Your task to perform on an android device: turn on data saver in the chrome app Image 0: 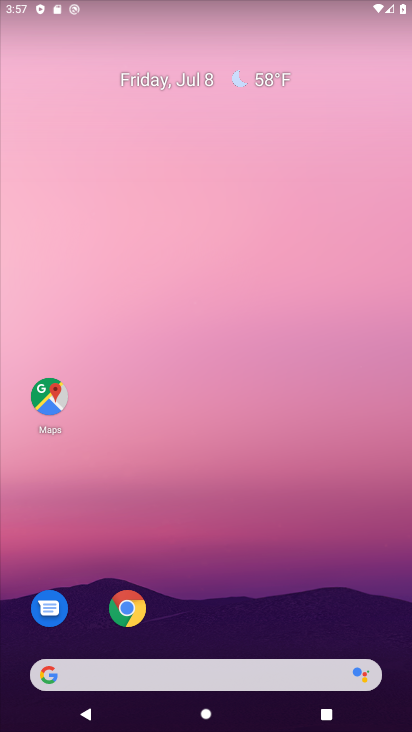
Step 0: click (128, 615)
Your task to perform on an android device: turn on data saver in the chrome app Image 1: 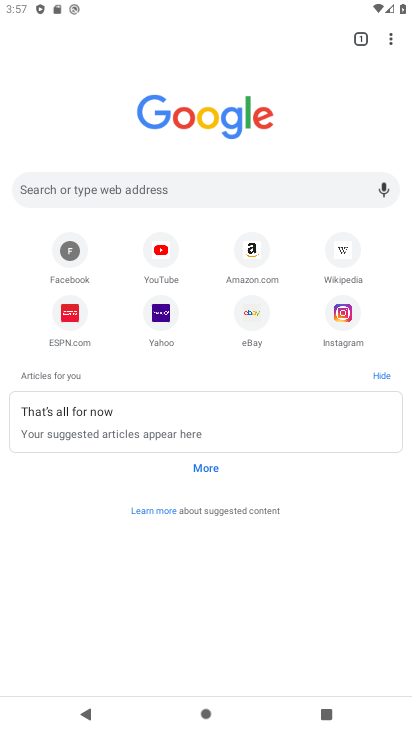
Step 1: click (390, 39)
Your task to perform on an android device: turn on data saver in the chrome app Image 2: 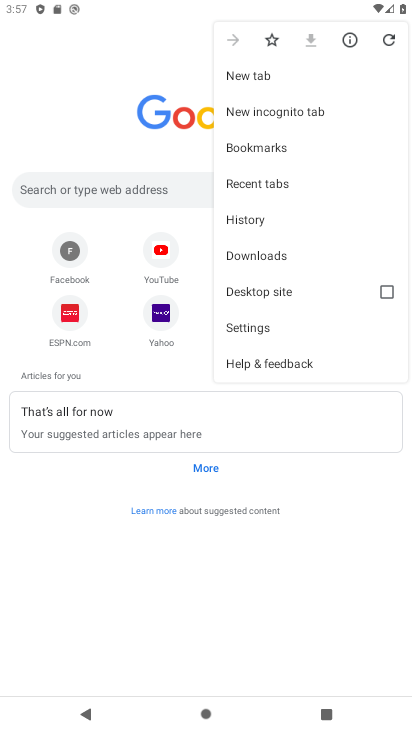
Step 2: click (262, 324)
Your task to perform on an android device: turn on data saver in the chrome app Image 3: 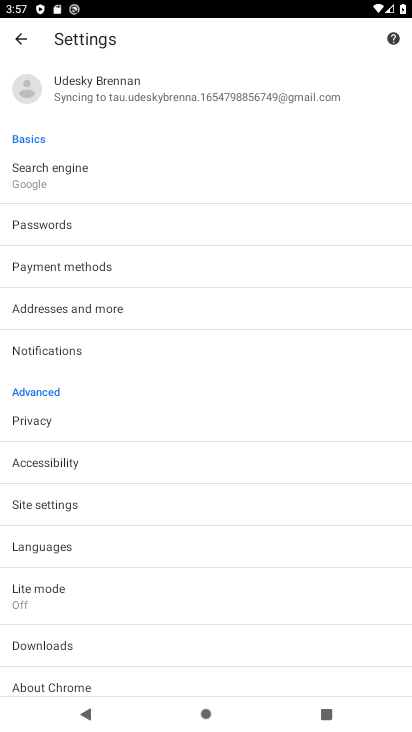
Step 3: click (62, 581)
Your task to perform on an android device: turn on data saver in the chrome app Image 4: 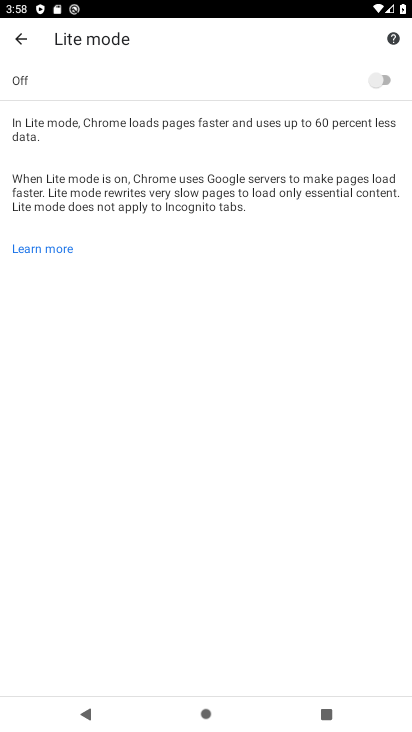
Step 4: click (396, 61)
Your task to perform on an android device: turn on data saver in the chrome app Image 5: 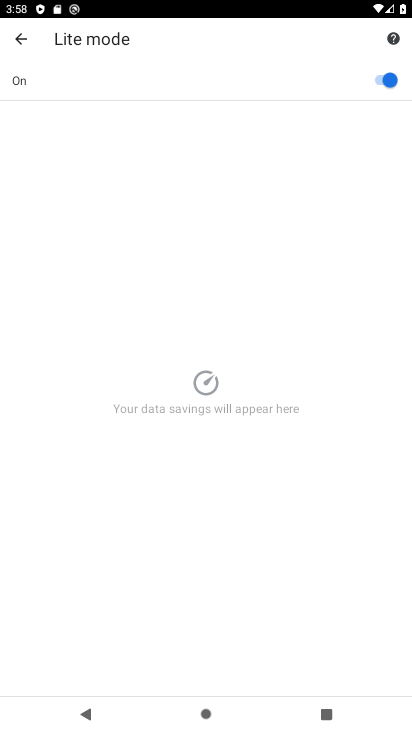
Step 5: task complete